Your task to perform on an android device: Open Google Image 0: 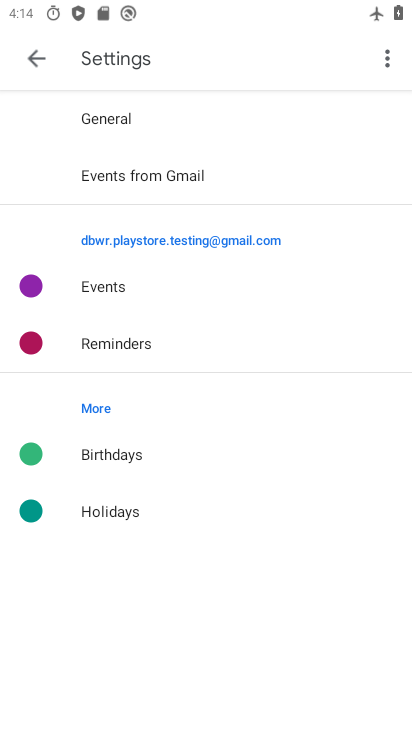
Step 0: press home button
Your task to perform on an android device: Open Google Image 1: 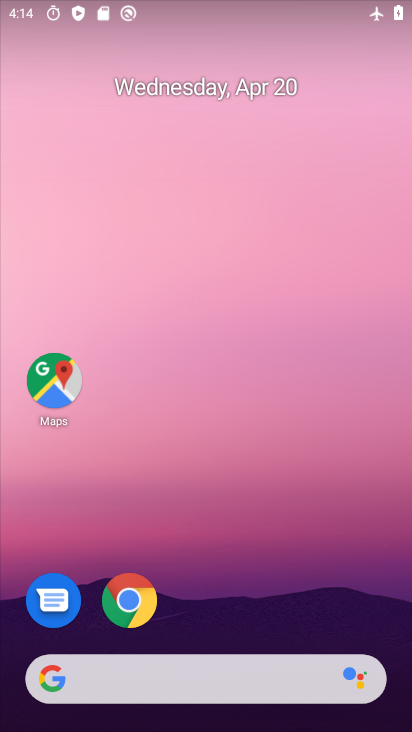
Step 1: drag from (247, 583) to (270, 77)
Your task to perform on an android device: Open Google Image 2: 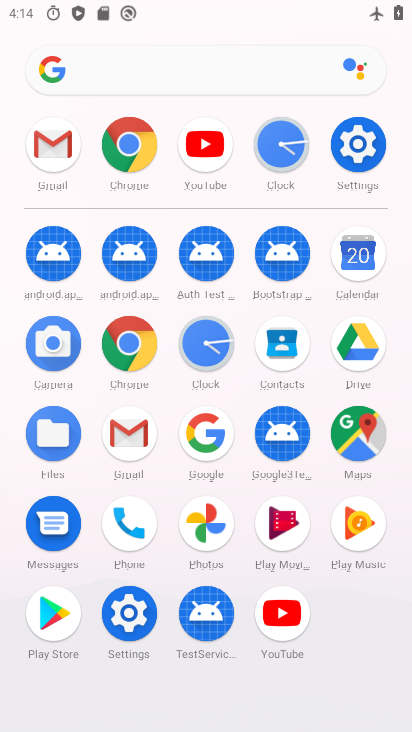
Step 2: click (136, 350)
Your task to perform on an android device: Open Google Image 3: 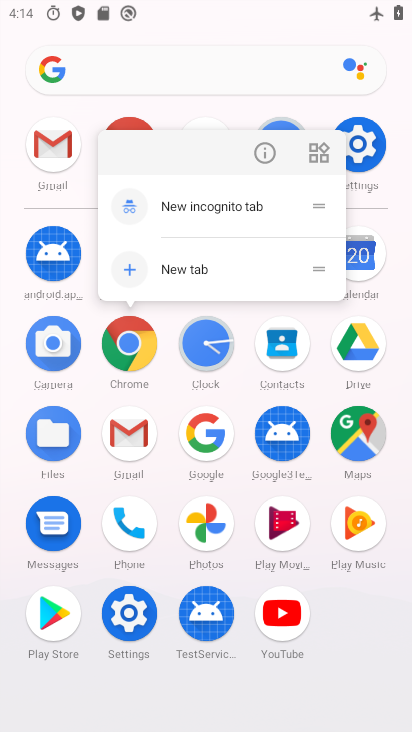
Step 3: click (201, 437)
Your task to perform on an android device: Open Google Image 4: 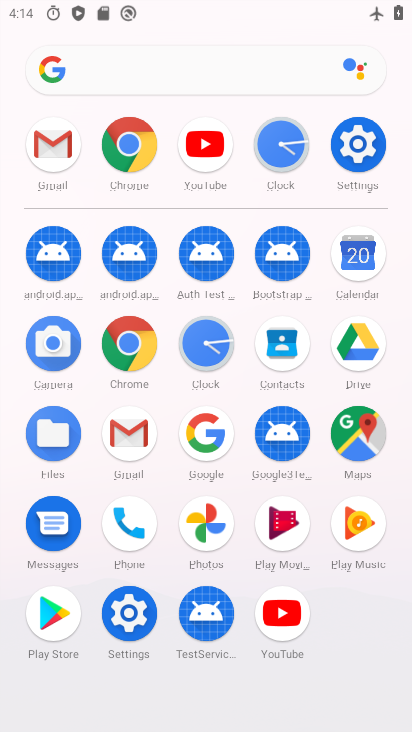
Step 4: click (202, 435)
Your task to perform on an android device: Open Google Image 5: 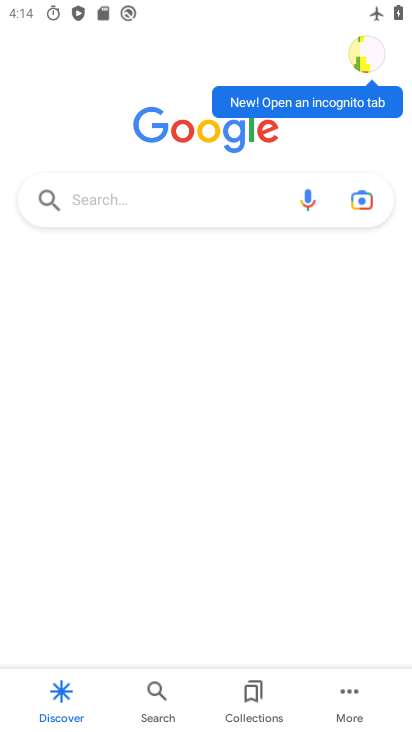
Step 5: task complete